Your task to perform on an android device: check google app version Image 0: 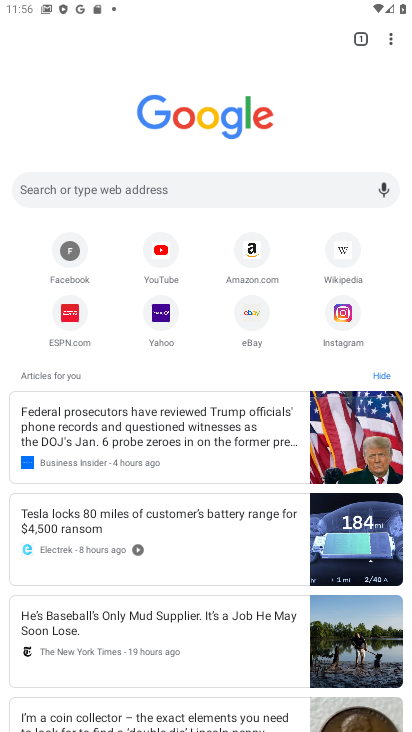
Step 0: press home button
Your task to perform on an android device: check google app version Image 1: 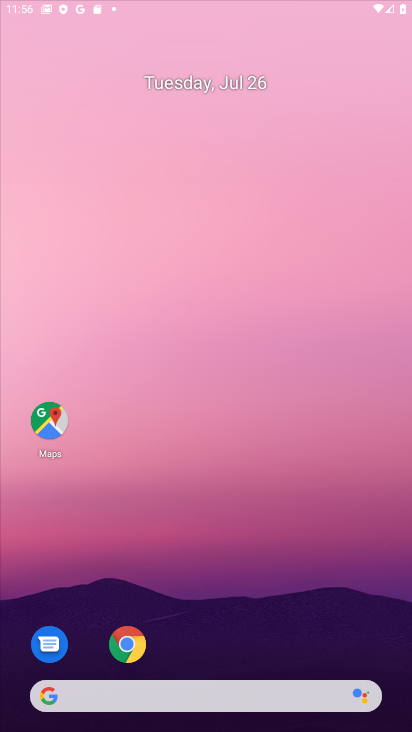
Step 1: drag from (134, 631) to (163, 40)
Your task to perform on an android device: check google app version Image 2: 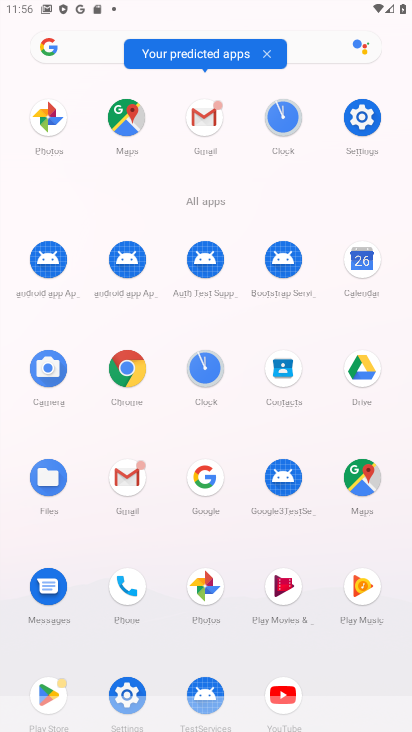
Step 2: click (193, 480)
Your task to perform on an android device: check google app version Image 3: 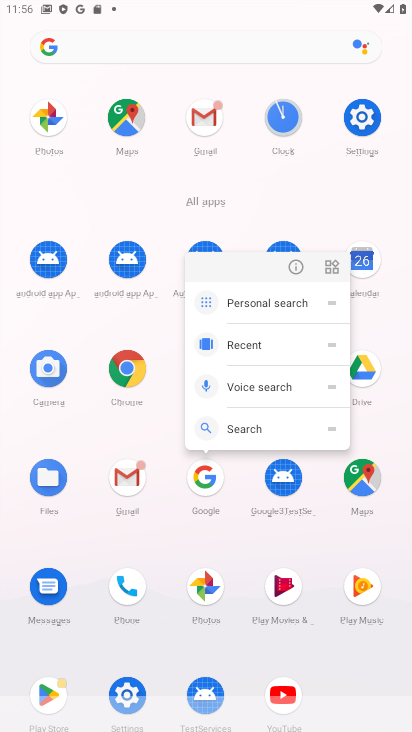
Step 3: click (293, 269)
Your task to perform on an android device: check google app version Image 4: 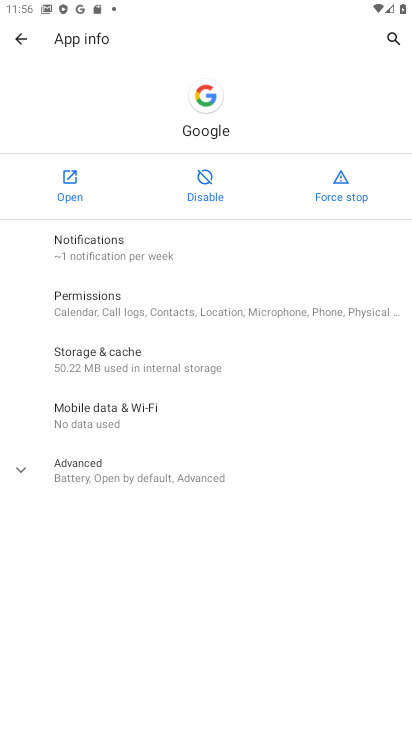
Step 4: click (70, 182)
Your task to perform on an android device: check google app version Image 5: 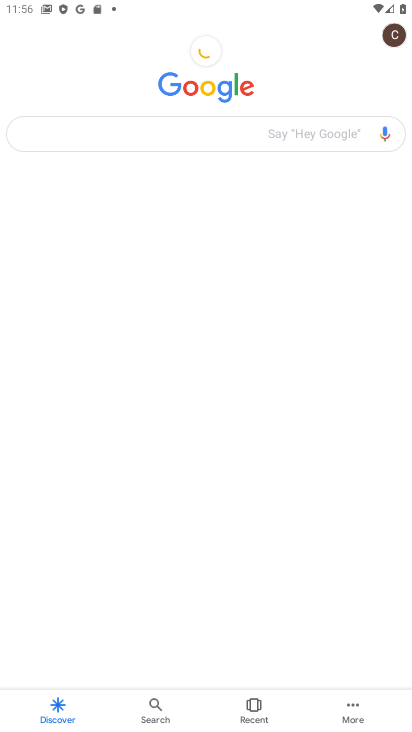
Step 5: click (343, 703)
Your task to perform on an android device: check google app version Image 6: 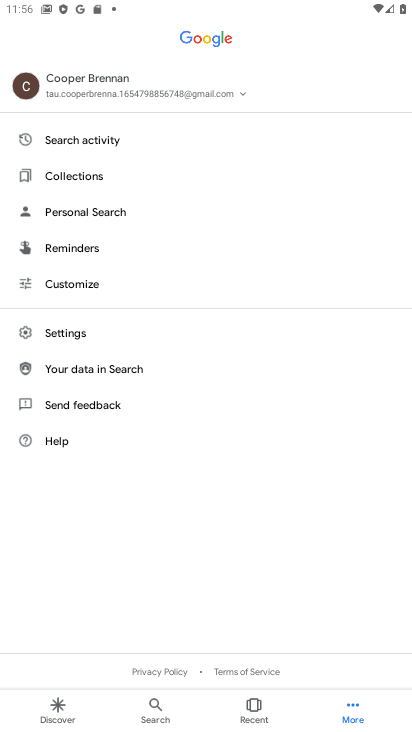
Step 6: click (59, 326)
Your task to perform on an android device: check google app version Image 7: 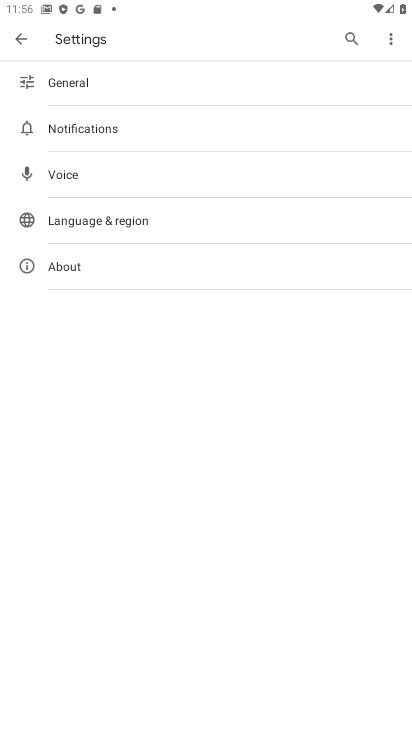
Step 7: click (77, 254)
Your task to perform on an android device: check google app version Image 8: 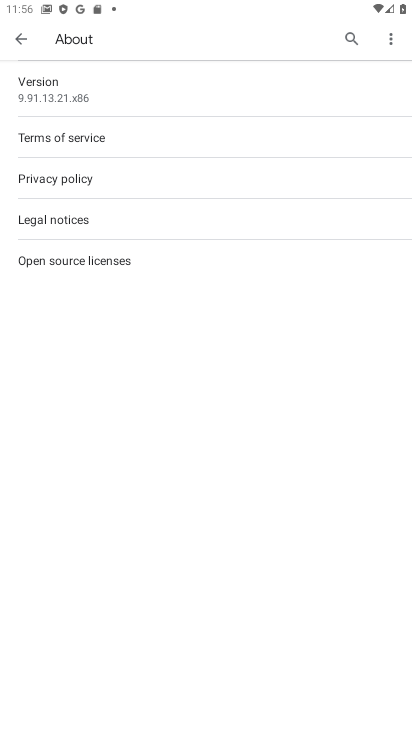
Step 8: click (124, 98)
Your task to perform on an android device: check google app version Image 9: 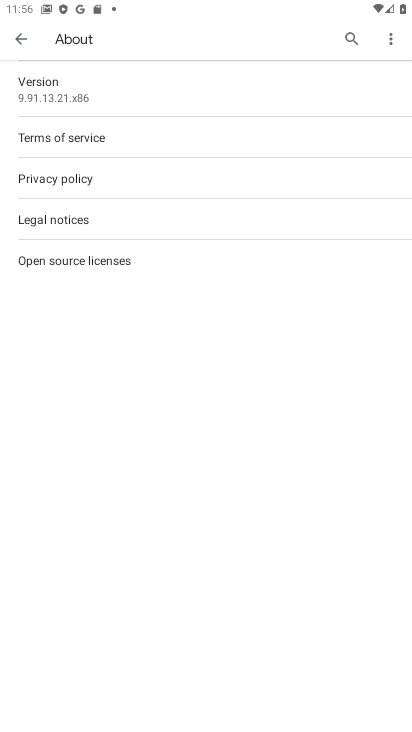
Step 9: click (89, 99)
Your task to perform on an android device: check google app version Image 10: 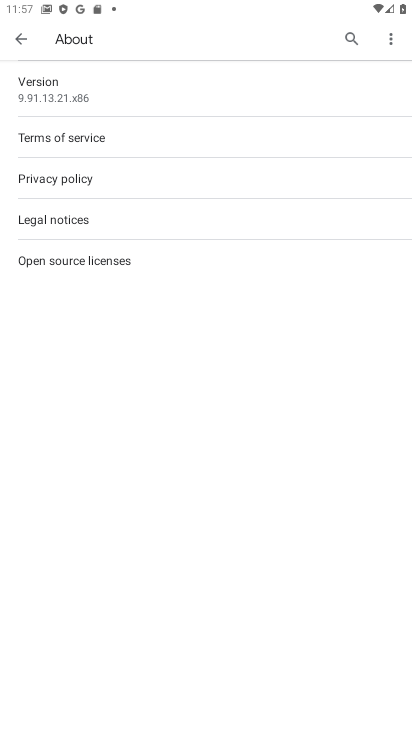
Step 10: task complete